Your task to perform on an android device: stop showing notifications on the lock screen Image 0: 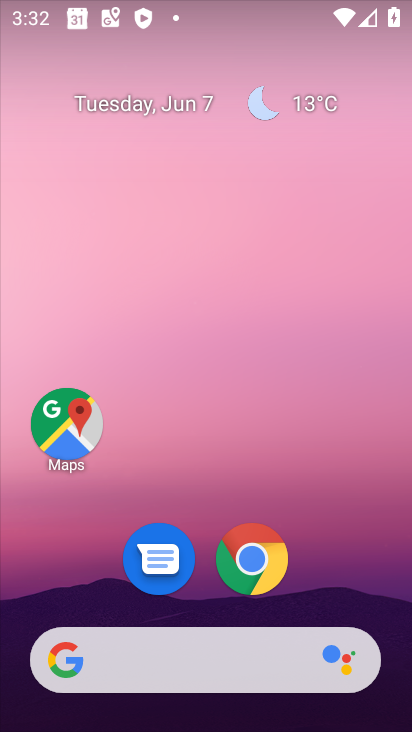
Step 0: drag from (332, 551) to (290, 101)
Your task to perform on an android device: stop showing notifications on the lock screen Image 1: 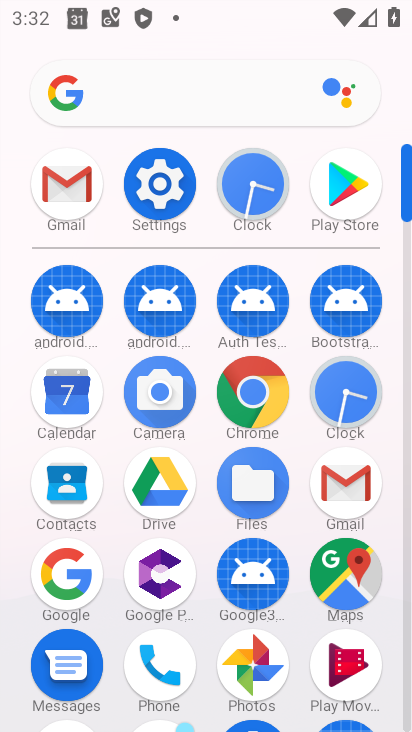
Step 1: click (159, 185)
Your task to perform on an android device: stop showing notifications on the lock screen Image 2: 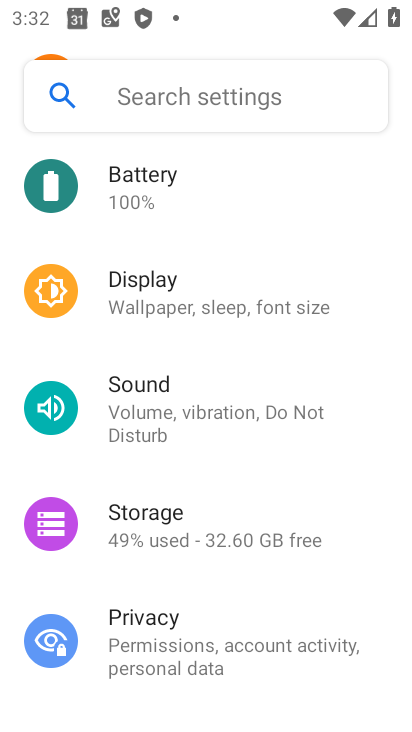
Step 2: drag from (219, 256) to (224, 368)
Your task to perform on an android device: stop showing notifications on the lock screen Image 3: 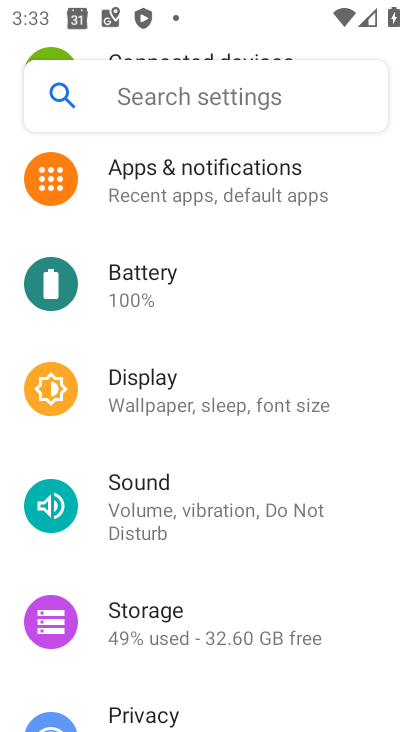
Step 3: drag from (220, 295) to (282, 431)
Your task to perform on an android device: stop showing notifications on the lock screen Image 4: 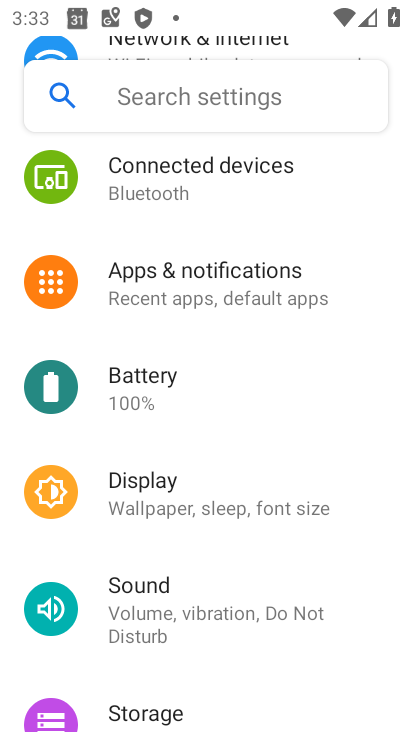
Step 4: click (253, 298)
Your task to perform on an android device: stop showing notifications on the lock screen Image 5: 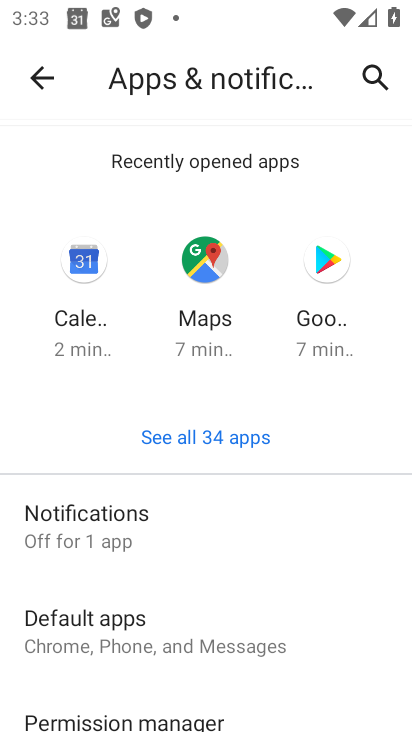
Step 5: click (64, 531)
Your task to perform on an android device: stop showing notifications on the lock screen Image 6: 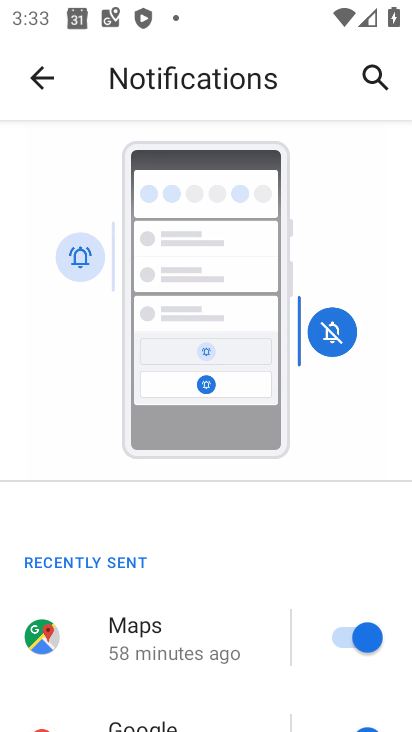
Step 6: drag from (188, 443) to (199, 385)
Your task to perform on an android device: stop showing notifications on the lock screen Image 7: 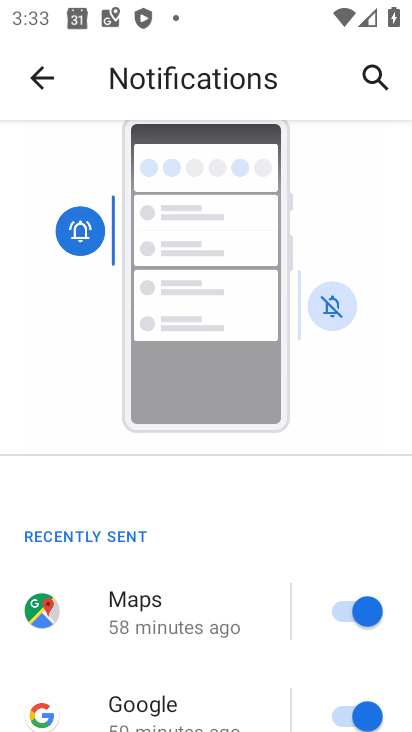
Step 7: drag from (157, 661) to (166, 509)
Your task to perform on an android device: stop showing notifications on the lock screen Image 8: 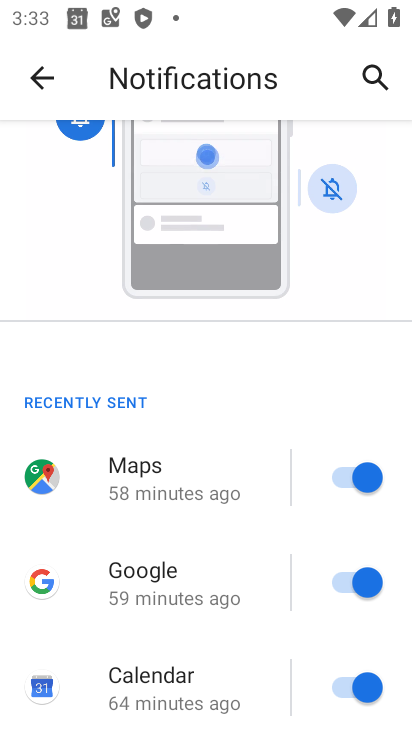
Step 8: drag from (146, 631) to (138, 499)
Your task to perform on an android device: stop showing notifications on the lock screen Image 9: 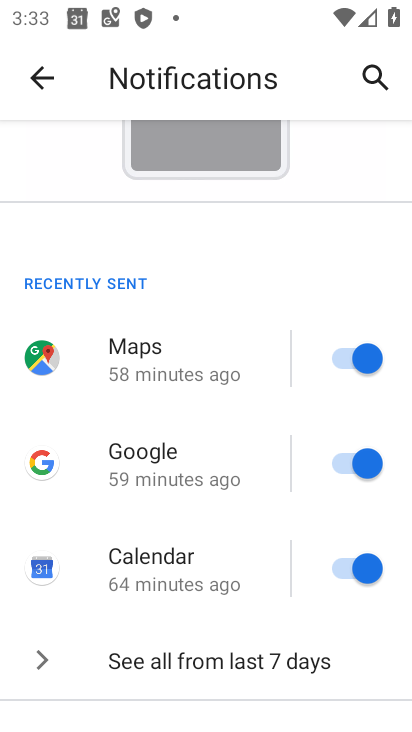
Step 9: drag from (126, 612) to (148, 475)
Your task to perform on an android device: stop showing notifications on the lock screen Image 10: 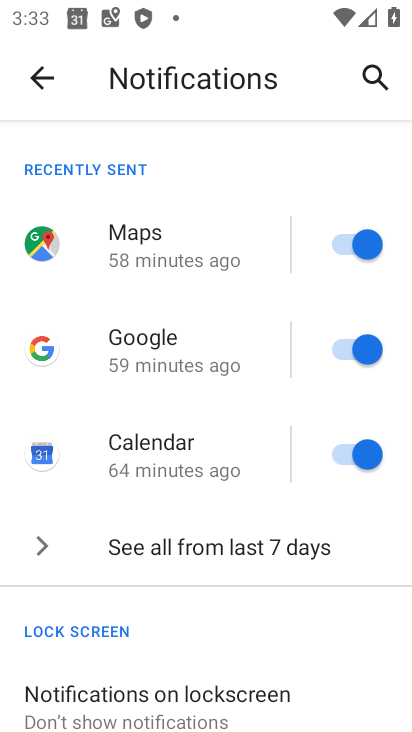
Step 10: drag from (184, 632) to (204, 542)
Your task to perform on an android device: stop showing notifications on the lock screen Image 11: 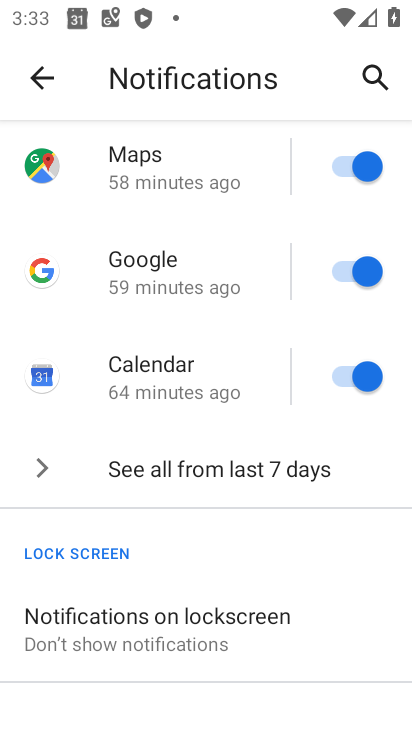
Step 11: click (190, 633)
Your task to perform on an android device: stop showing notifications on the lock screen Image 12: 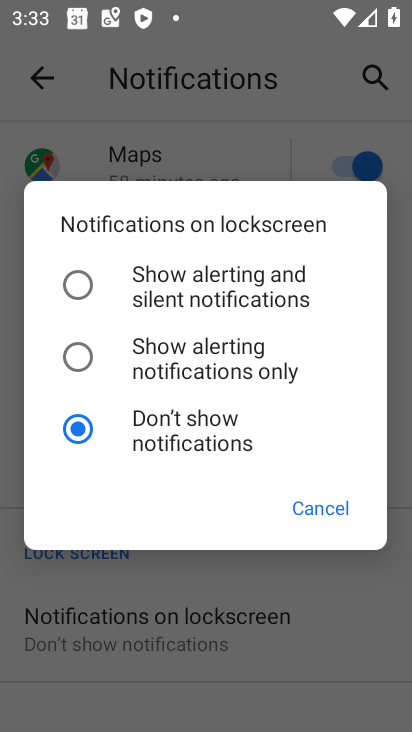
Step 12: click (71, 433)
Your task to perform on an android device: stop showing notifications on the lock screen Image 13: 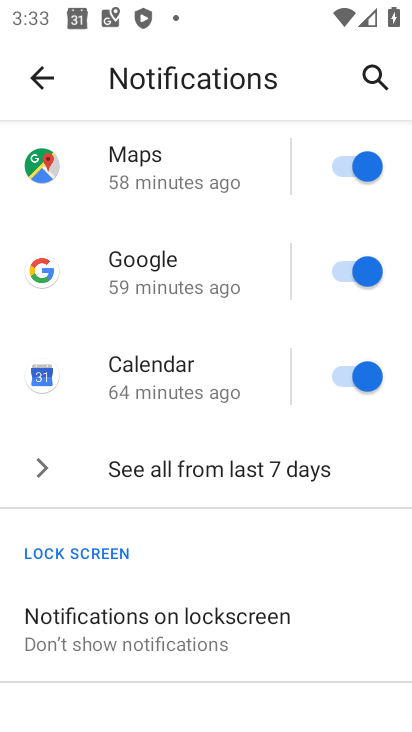
Step 13: task complete